Your task to perform on an android device: Open the stopwatch Image 0: 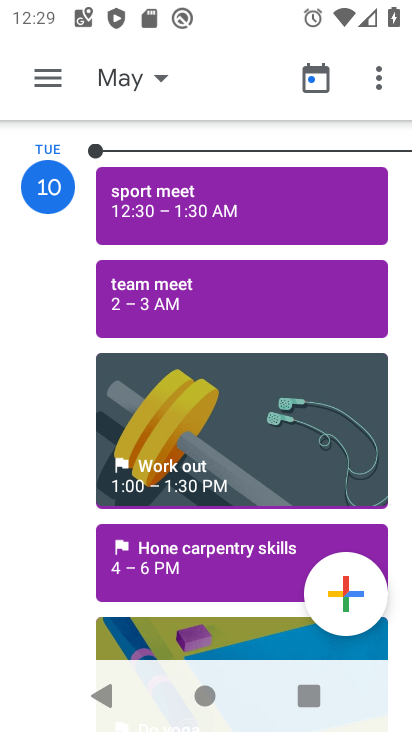
Step 0: press home button
Your task to perform on an android device: Open the stopwatch Image 1: 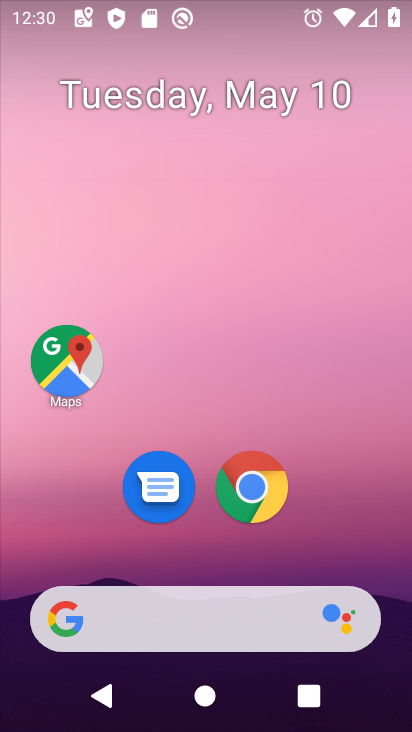
Step 1: drag from (373, 466) to (370, 156)
Your task to perform on an android device: Open the stopwatch Image 2: 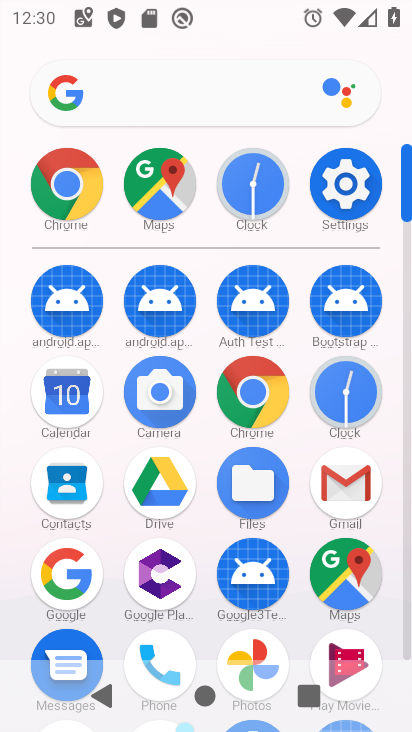
Step 2: click (342, 219)
Your task to perform on an android device: Open the stopwatch Image 3: 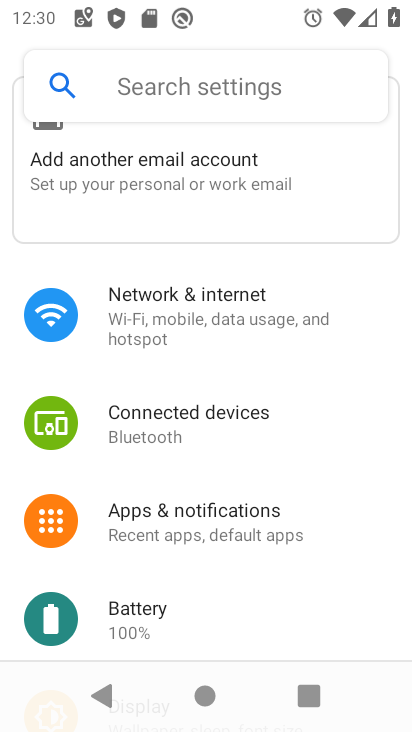
Step 3: press home button
Your task to perform on an android device: Open the stopwatch Image 4: 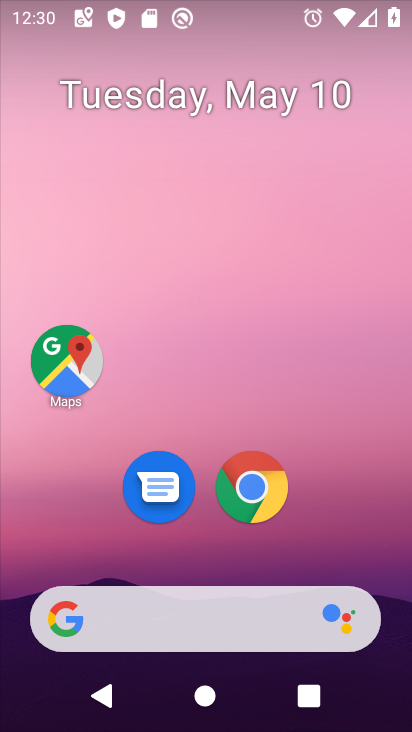
Step 4: drag from (385, 538) to (331, 78)
Your task to perform on an android device: Open the stopwatch Image 5: 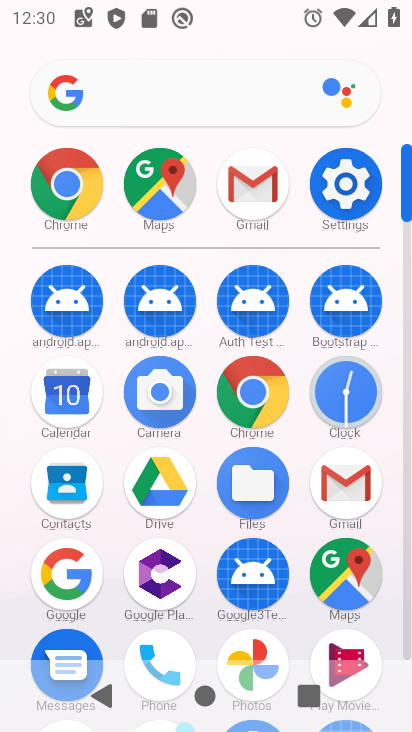
Step 5: click (341, 425)
Your task to perform on an android device: Open the stopwatch Image 6: 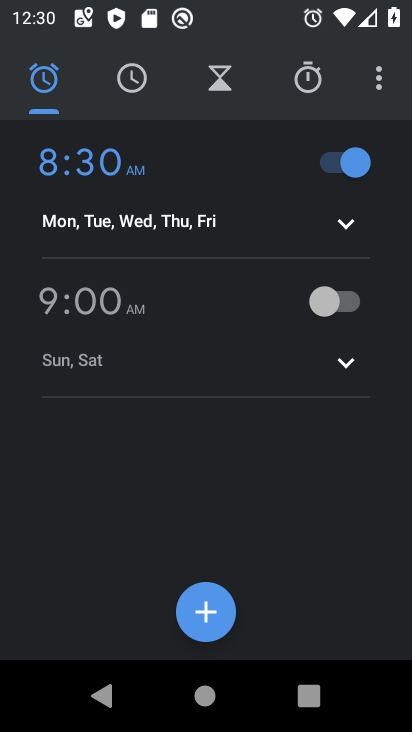
Step 6: click (313, 85)
Your task to perform on an android device: Open the stopwatch Image 7: 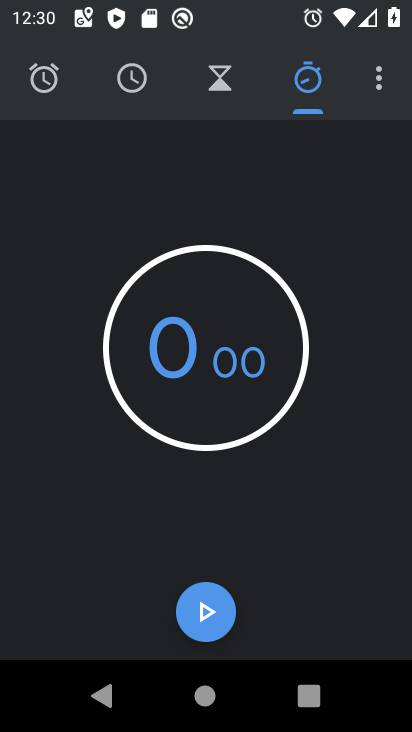
Step 7: task complete